Your task to perform on an android device: Go to privacy settings Image 0: 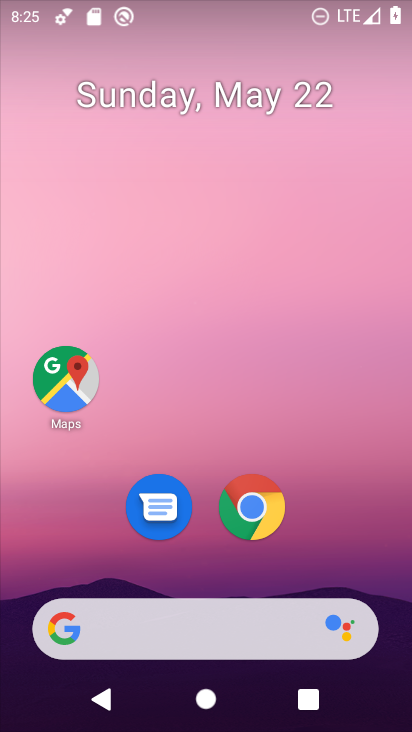
Step 0: click (255, 512)
Your task to perform on an android device: Go to privacy settings Image 1: 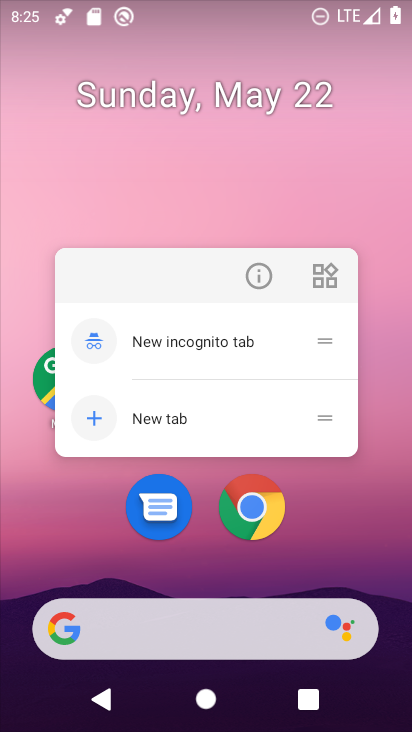
Step 1: click (192, 687)
Your task to perform on an android device: Go to privacy settings Image 2: 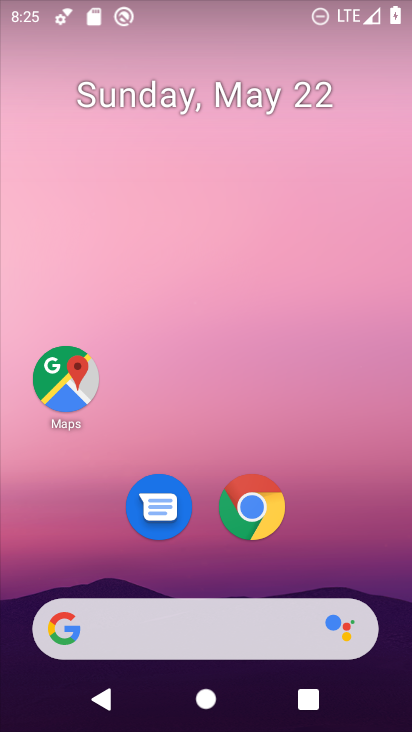
Step 2: drag from (257, 718) to (336, 116)
Your task to perform on an android device: Go to privacy settings Image 3: 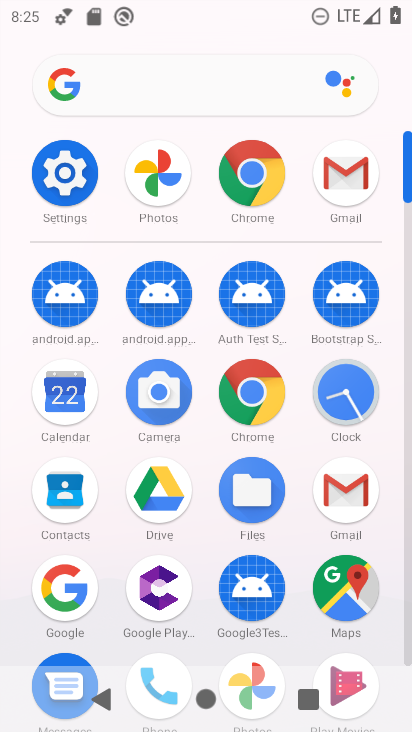
Step 3: click (68, 149)
Your task to perform on an android device: Go to privacy settings Image 4: 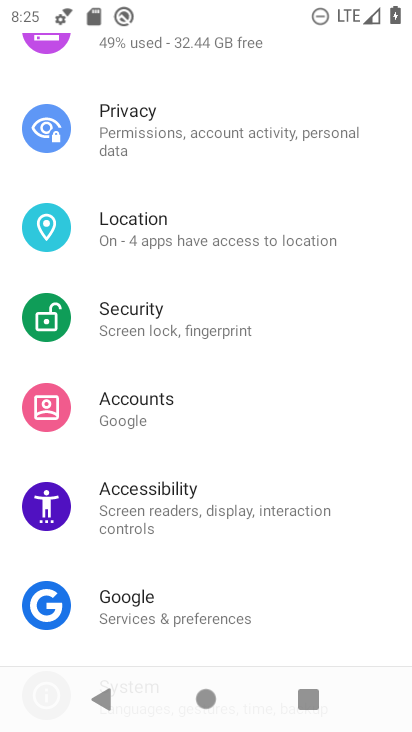
Step 4: click (207, 122)
Your task to perform on an android device: Go to privacy settings Image 5: 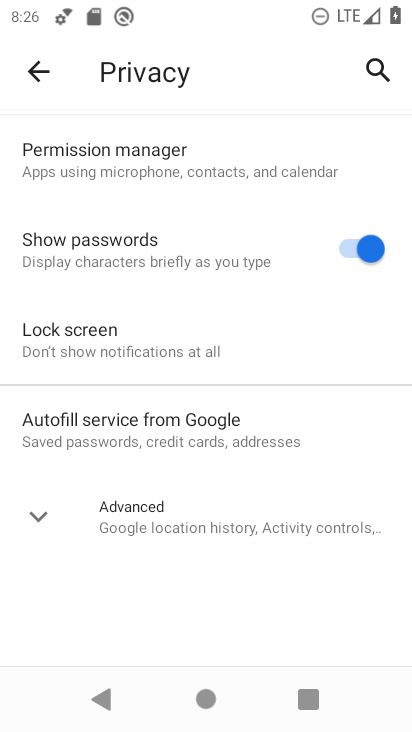
Step 5: task complete